Your task to perform on an android device: check data usage Image 0: 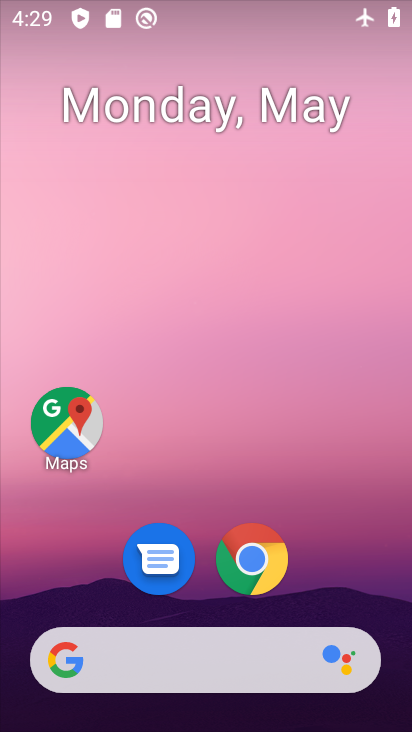
Step 0: click (297, 5)
Your task to perform on an android device: check data usage Image 1: 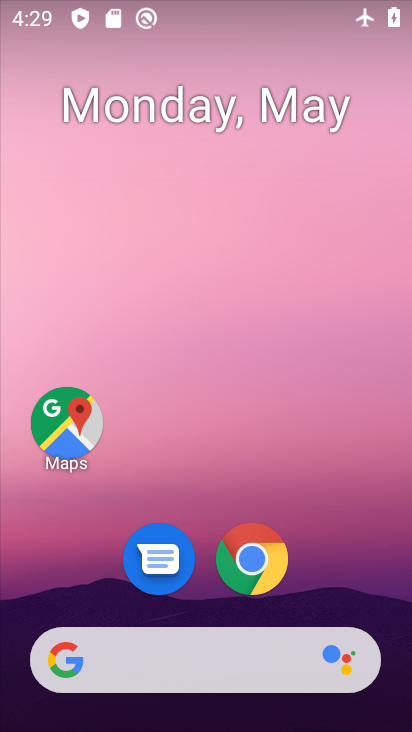
Step 1: drag from (318, 537) to (223, 53)
Your task to perform on an android device: check data usage Image 2: 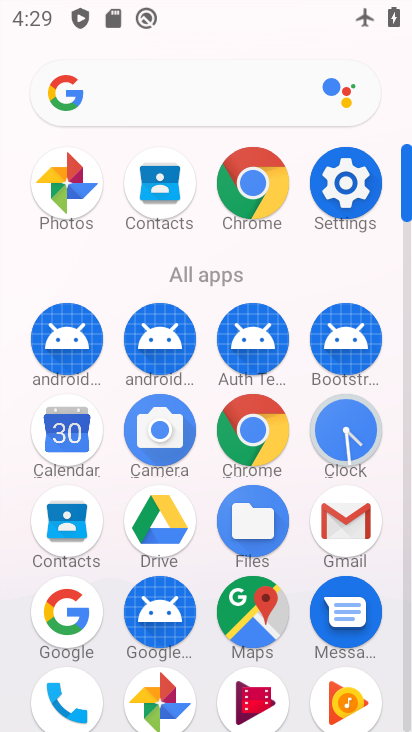
Step 2: click (341, 177)
Your task to perform on an android device: check data usage Image 3: 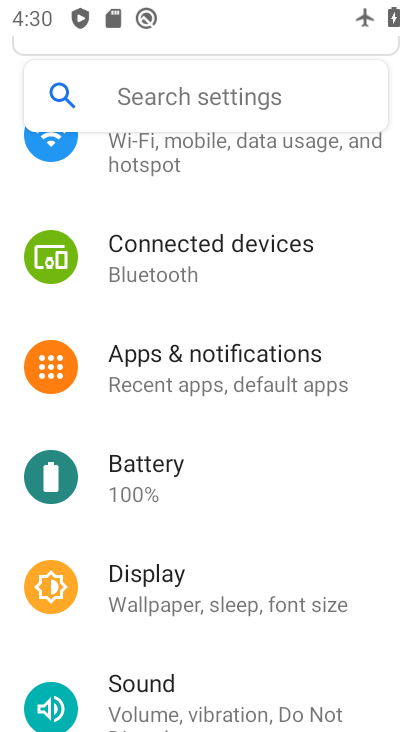
Step 3: drag from (300, 259) to (295, 638)
Your task to perform on an android device: check data usage Image 4: 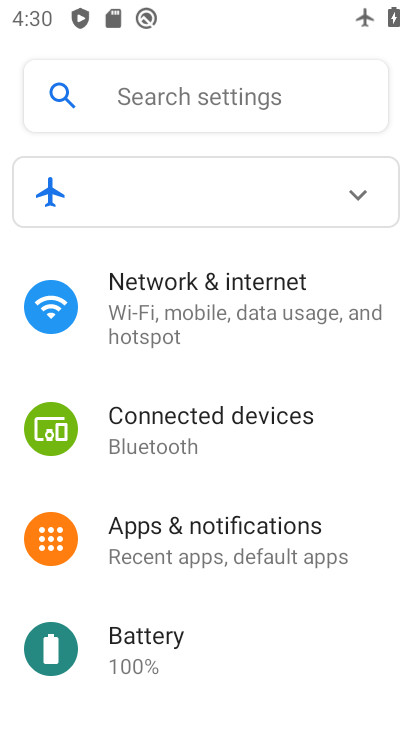
Step 4: click (271, 311)
Your task to perform on an android device: check data usage Image 5: 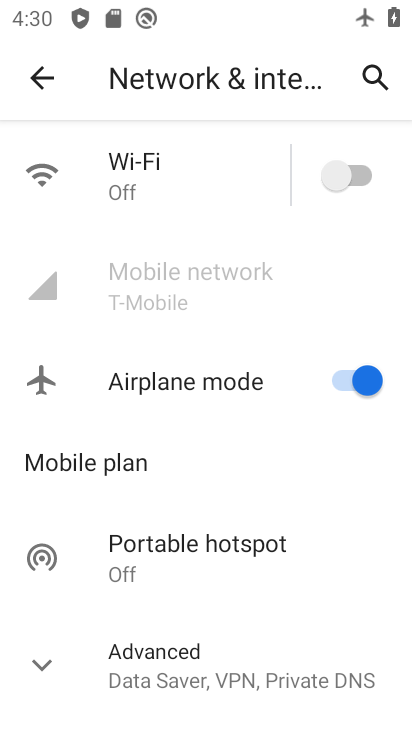
Step 5: task complete